Your task to perform on an android device: toggle sleep mode Image 0: 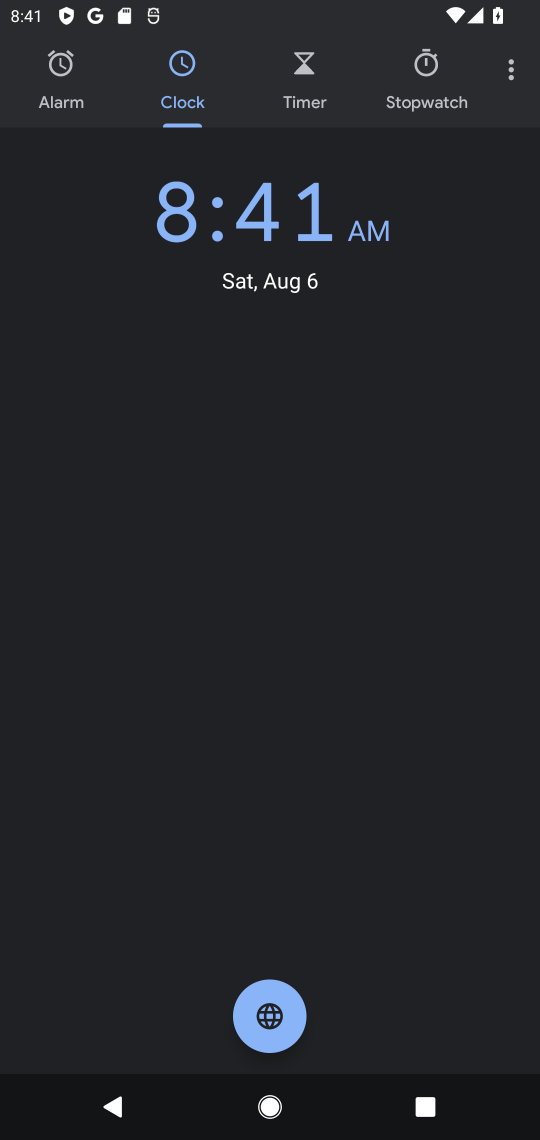
Step 0: press home button
Your task to perform on an android device: toggle sleep mode Image 1: 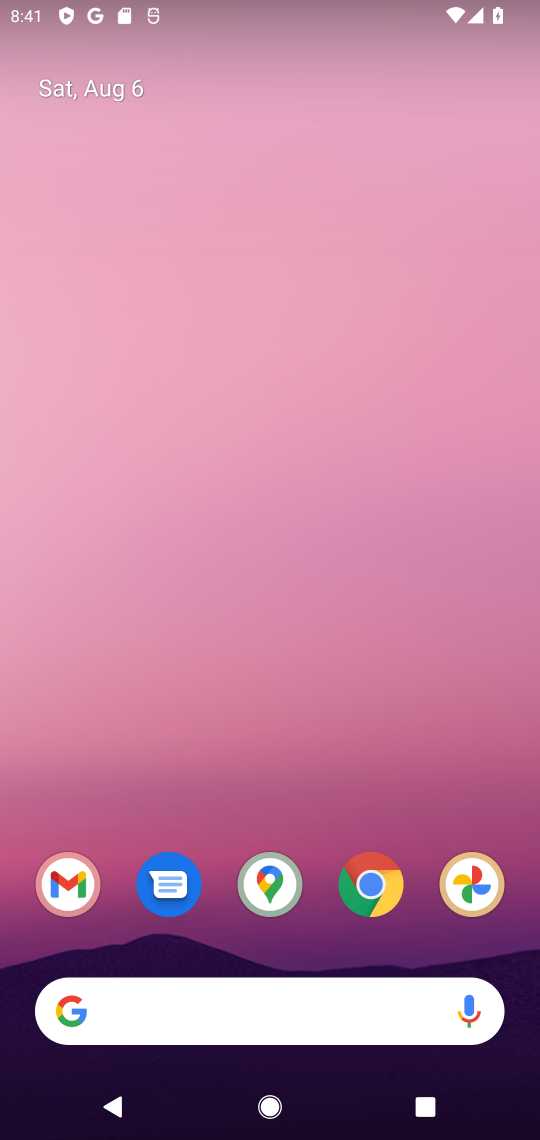
Step 1: drag from (420, 942) to (422, 204)
Your task to perform on an android device: toggle sleep mode Image 2: 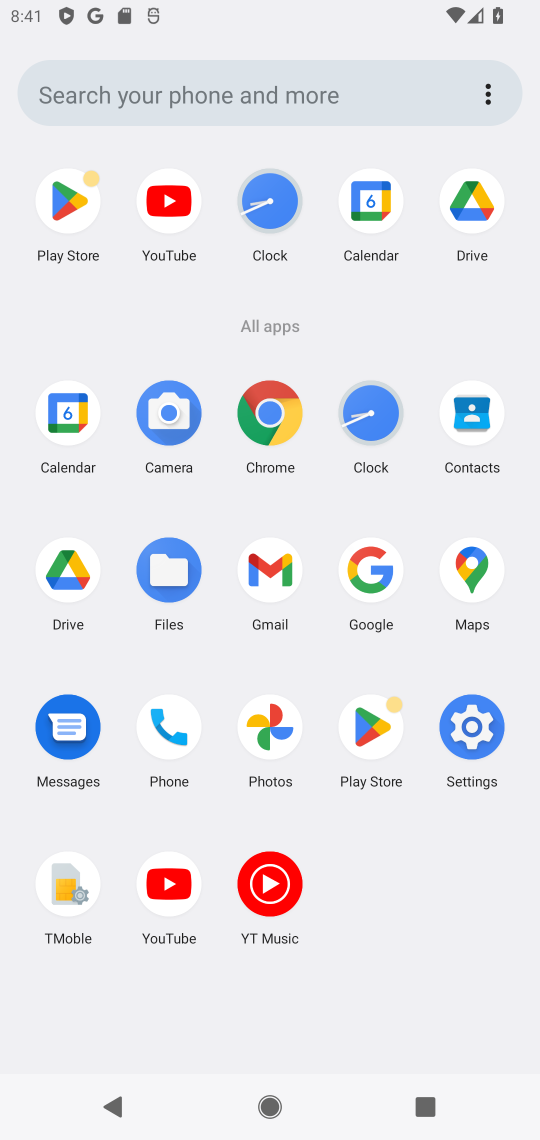
Step 2: click (472, 729)
Your task to perform on an android device: toggle sleep mode Image 3: 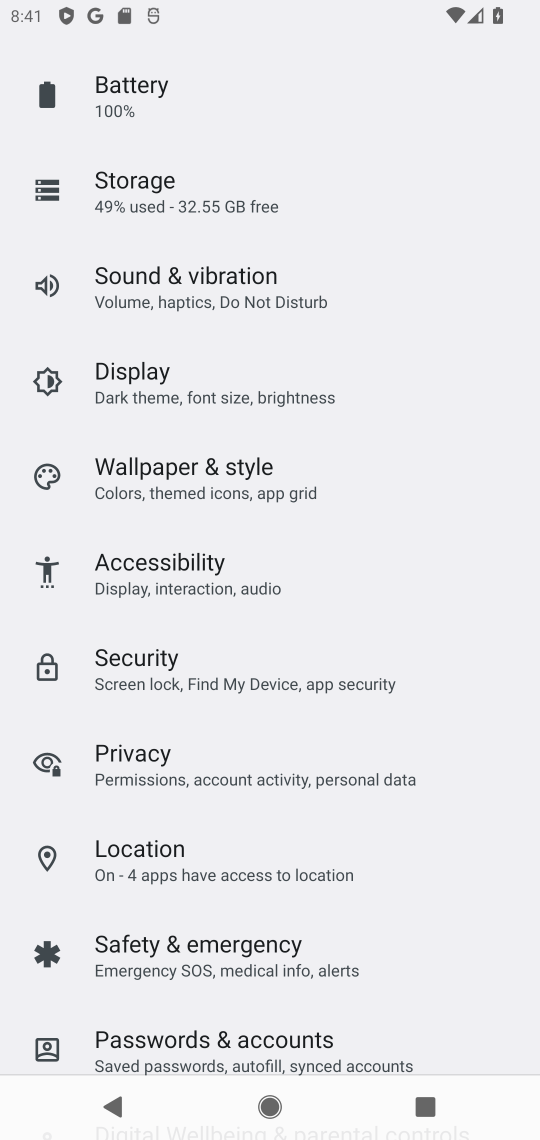
Step 3: drag from (376, 343) to (388, 646)
Your task to perform on an android device: toggle sleep mode Image 4: 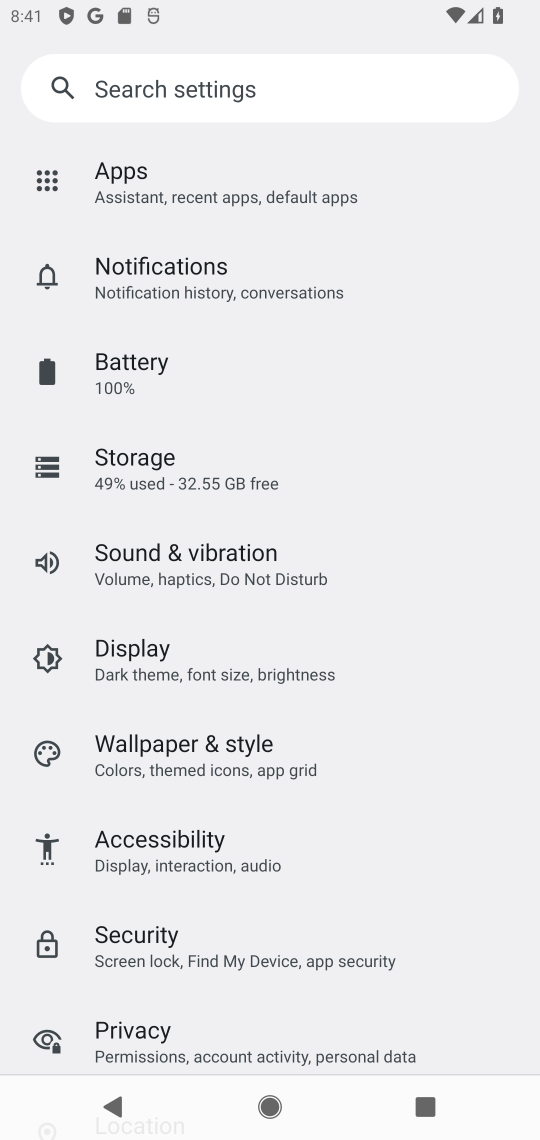
Step 4: click (145, 661)
Your task to perform on an android device: toggle sleep mode Image 5: 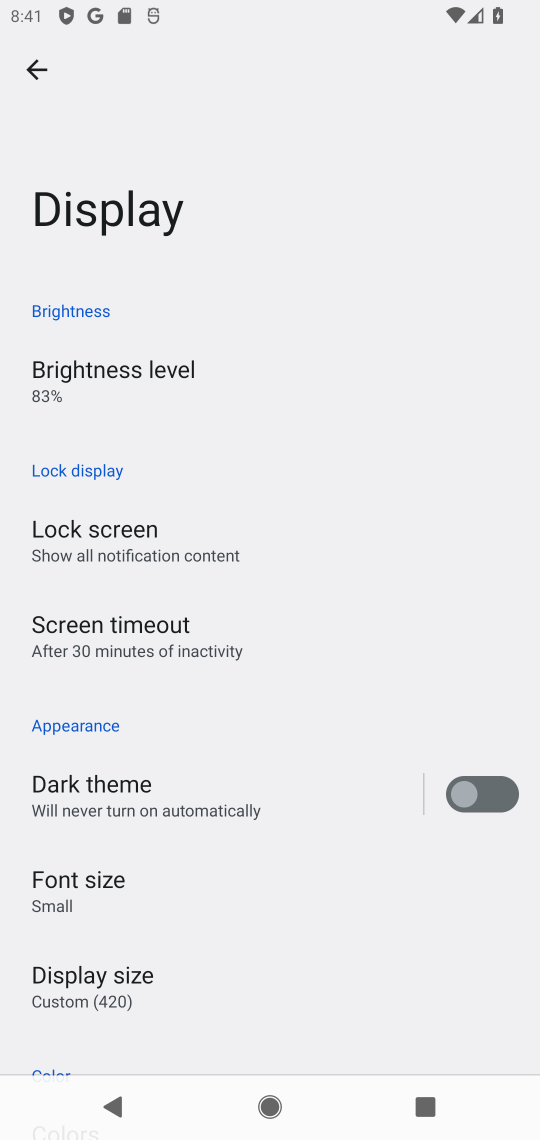
Step 5: task complete